Your task to perform on an android device: toggle priority inbox in the gmail app Image 0: 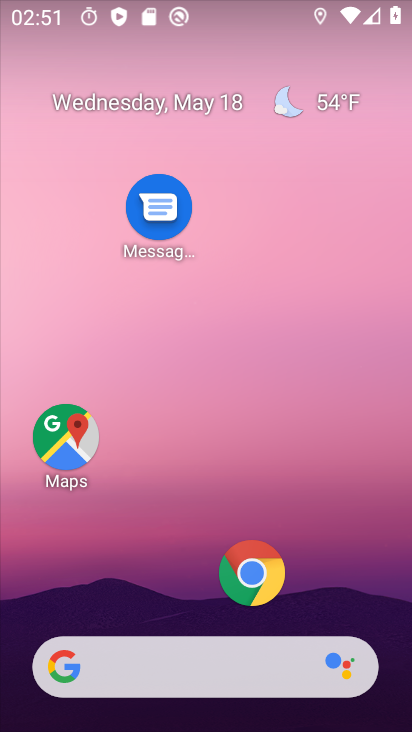
Step 0: drag from (190, 597) to (208, 216)
Your task to perform on an android device: toggle priority inbox in the gmail app Image 1: 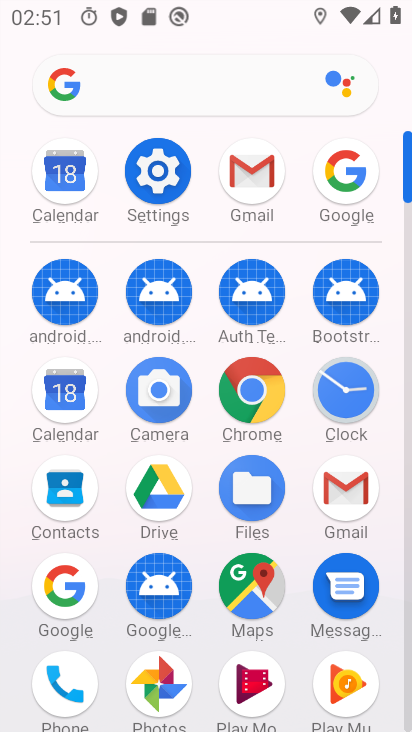
Step 1: click (276, 168)
Your task to perform on an android device: toggle priority inbox in the gmail app Image 2: 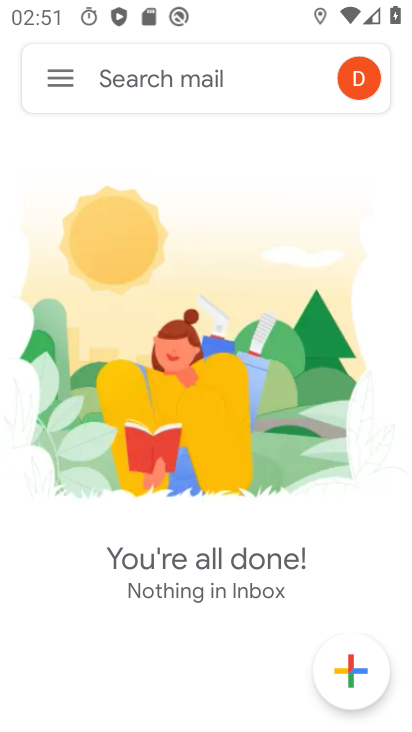
Step 2: click (45, 81)
Your task to perform on an android device: toggle priority inbox in the gmail app Image 3: 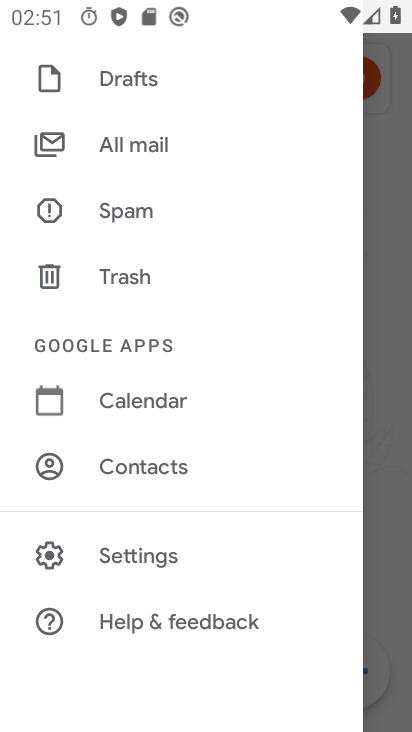
Step 3: click (153, 546)
Your task to perform on an android device: toggle priority inbox in the gmail app Image 4: 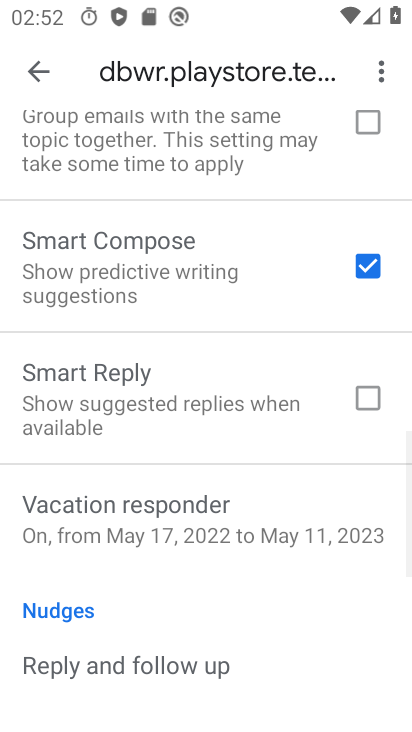
Step 4: drag from (166, 137) to (176, 443)
Your task to perform on an android device: toggle priority inbox in the gmail app Image 5: 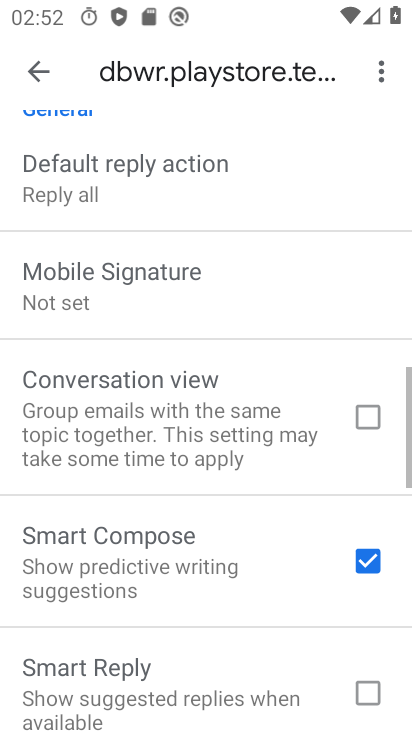
Step 5: drag from (150, 236) to (151, 466)
Your task to perform on an android device: toggle priority inbox in the gmail app Image 6: 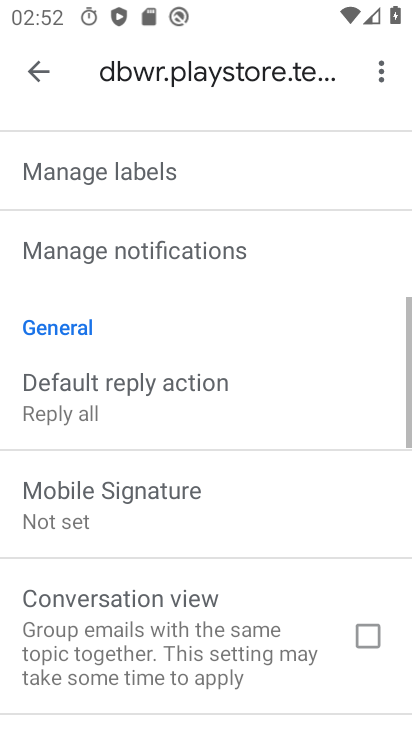
Step 6: drag from (147, 295) to (154, 495)
Your task to perform on an android device: toggle priority inbox in the gmail app Image 7: 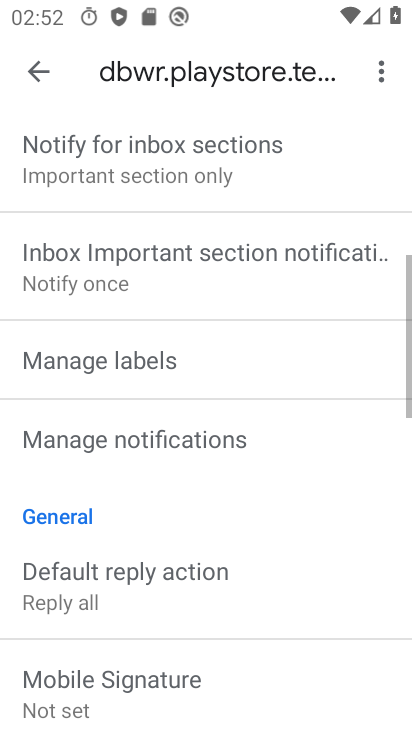
Step 7: drag from (156, 268) to (143, 470)
Your task to perform on an android device: toggle priority inbox in the gmail app Image 8: 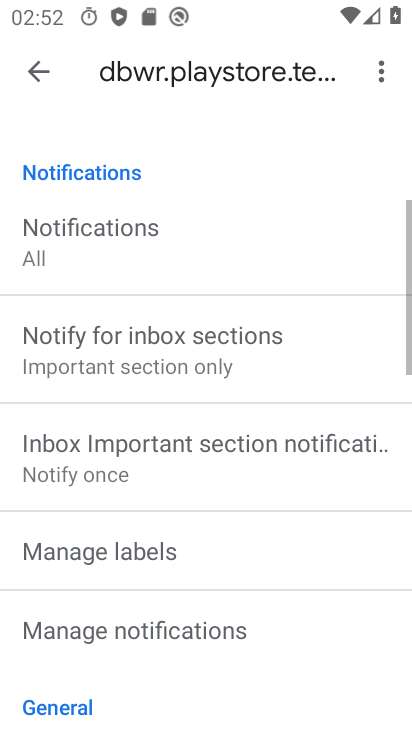
Step 8: drag from (170, 234) to (173, 506)
Your task to perform on an android device: toggle priority inbox in the gmail app Image 9: 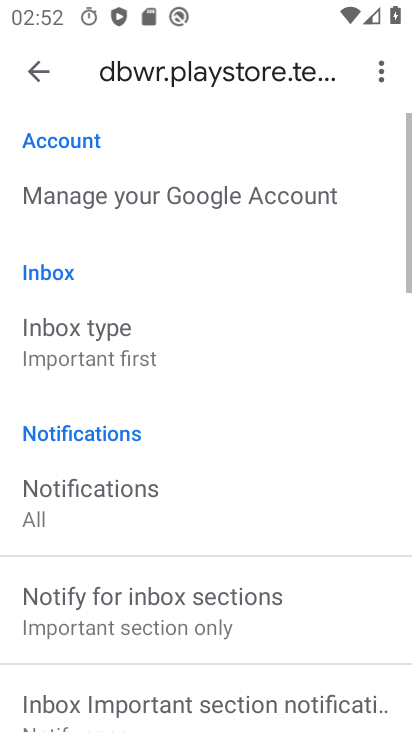
Step 9: drag from (181, 202) to (182, 470)
Your task to perform on an android device: toggle priority inbox in the gmail app Image 10: 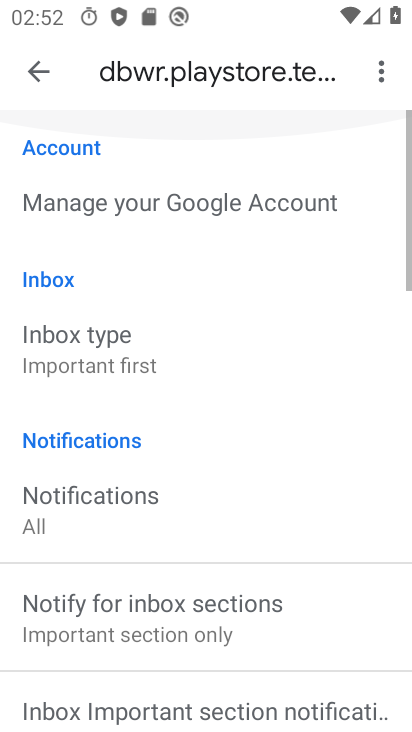
Step 10: drag from (175, 186) to (177, 466)
Your task to perform on an android device: toggle priority inbox in the gmail app Image 11: 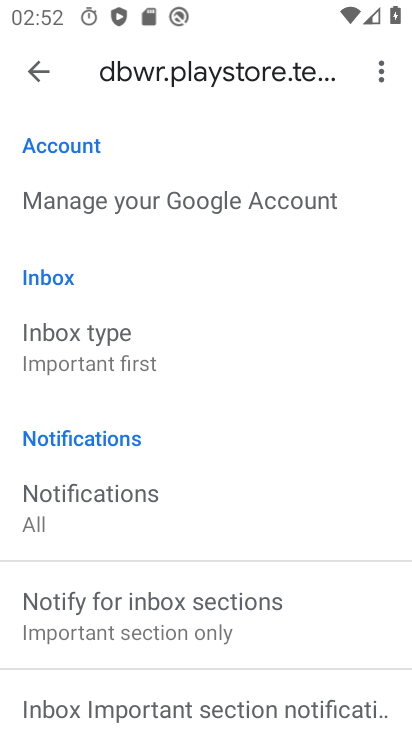
Step 11: click (145, 333)
Your task to perform on an android device: toggle priority inbox in the gmail app Image 12: 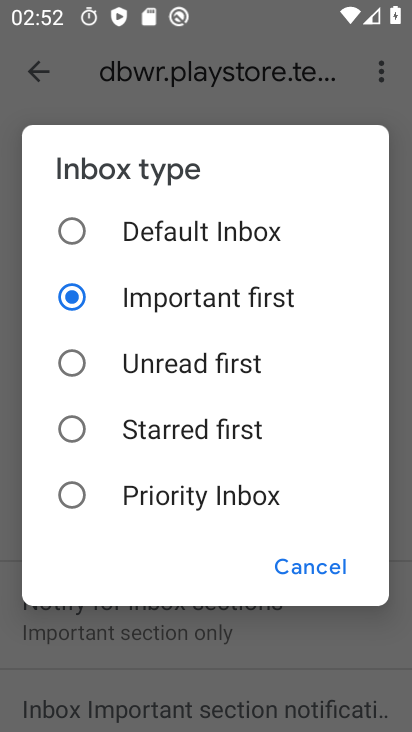
Step 12: click (116, 505)
Your task to perform on an android device: toggle priority inbox in the gmail app Image 13: 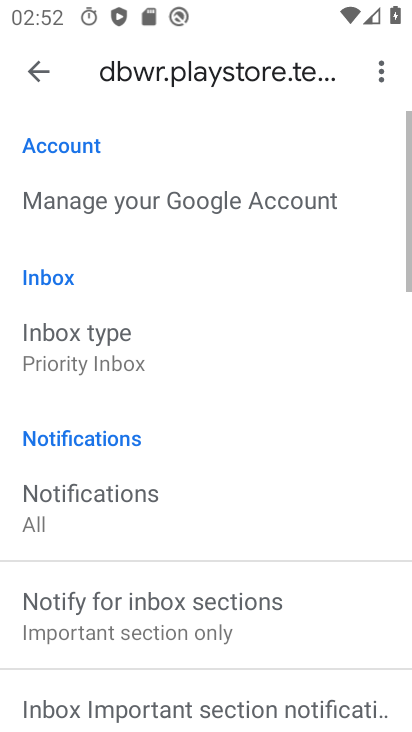
Step 13: task complete